Your task to perform on an android device: Open privacy settings Image 0: 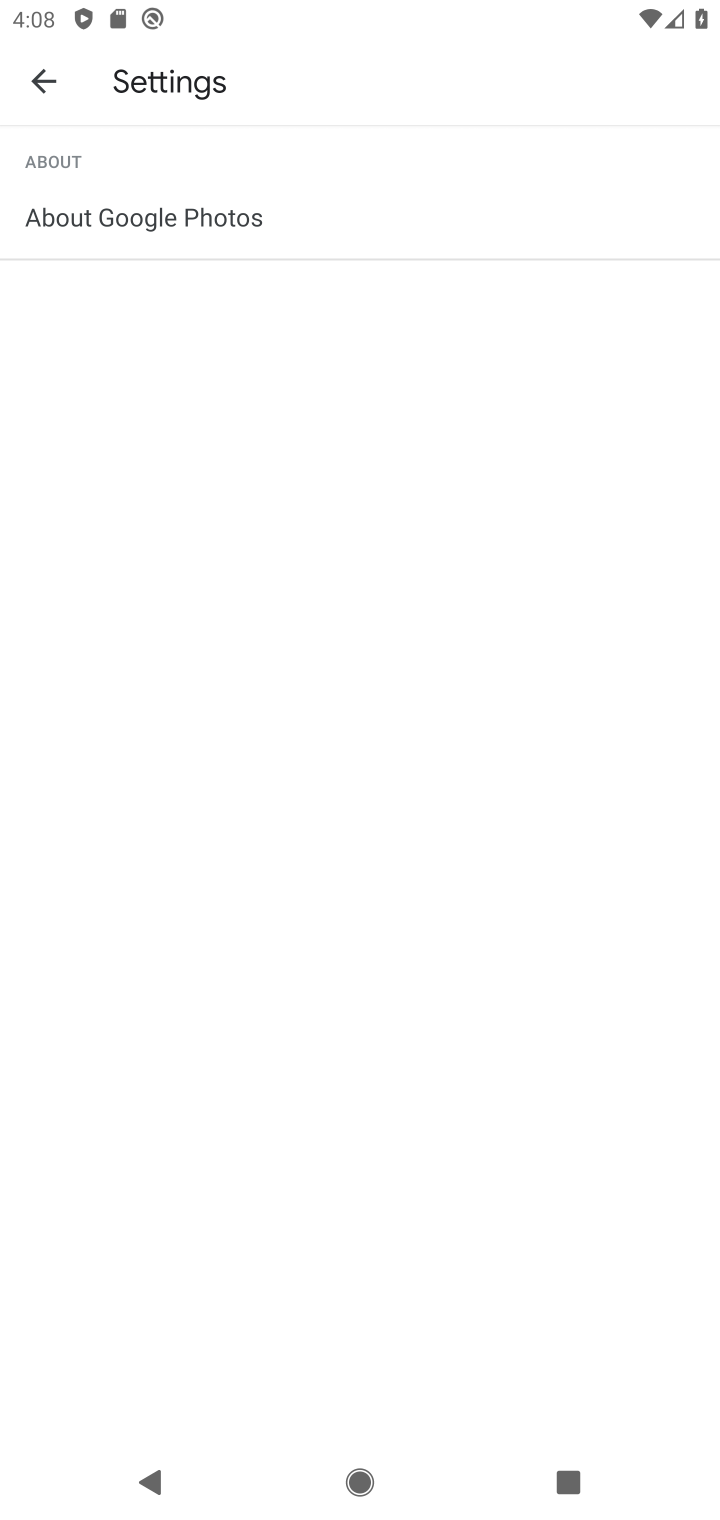
Step 0: press back button
Your task to perform on an android device: Open privacy settings Image 1: 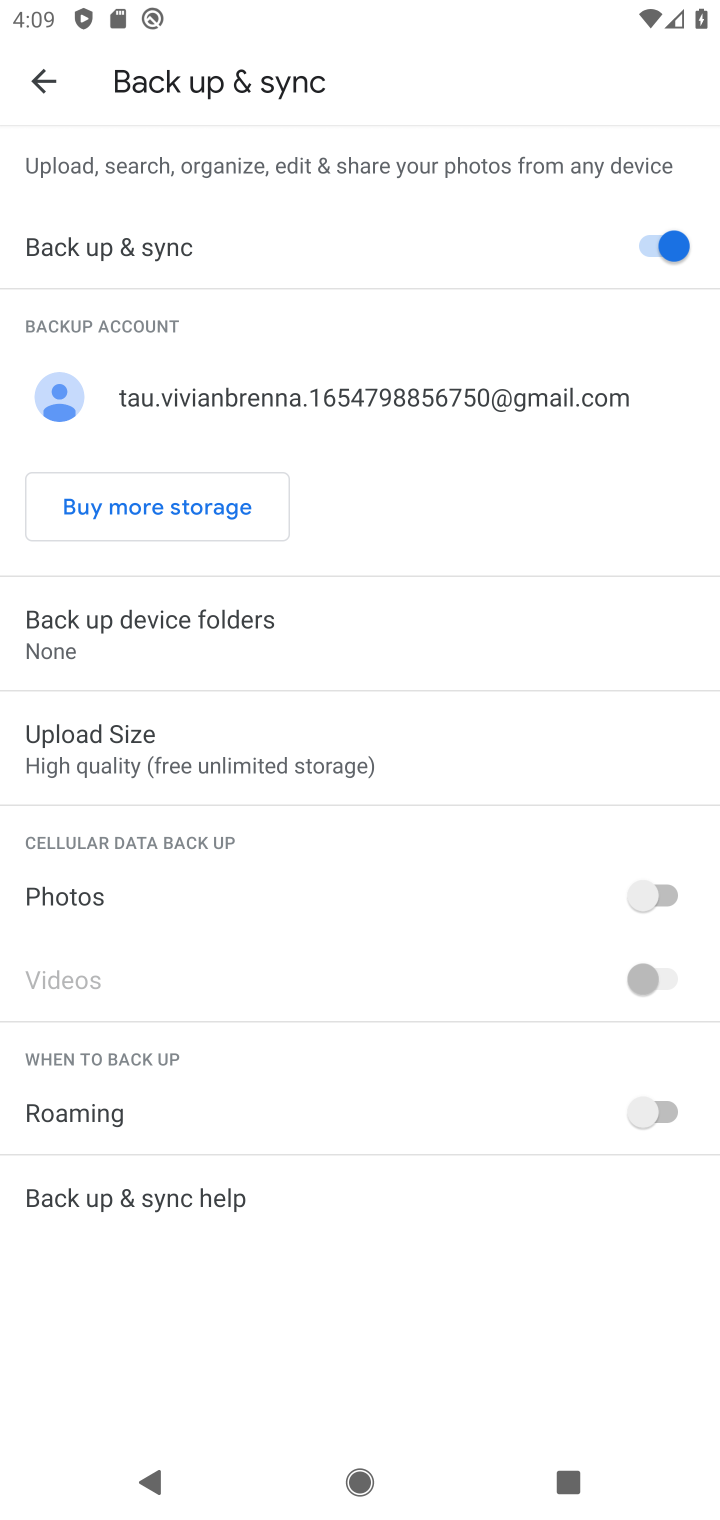
Step 1: click (49, 65)
Your task to perform on an android device: Open privacy settings Image 2: 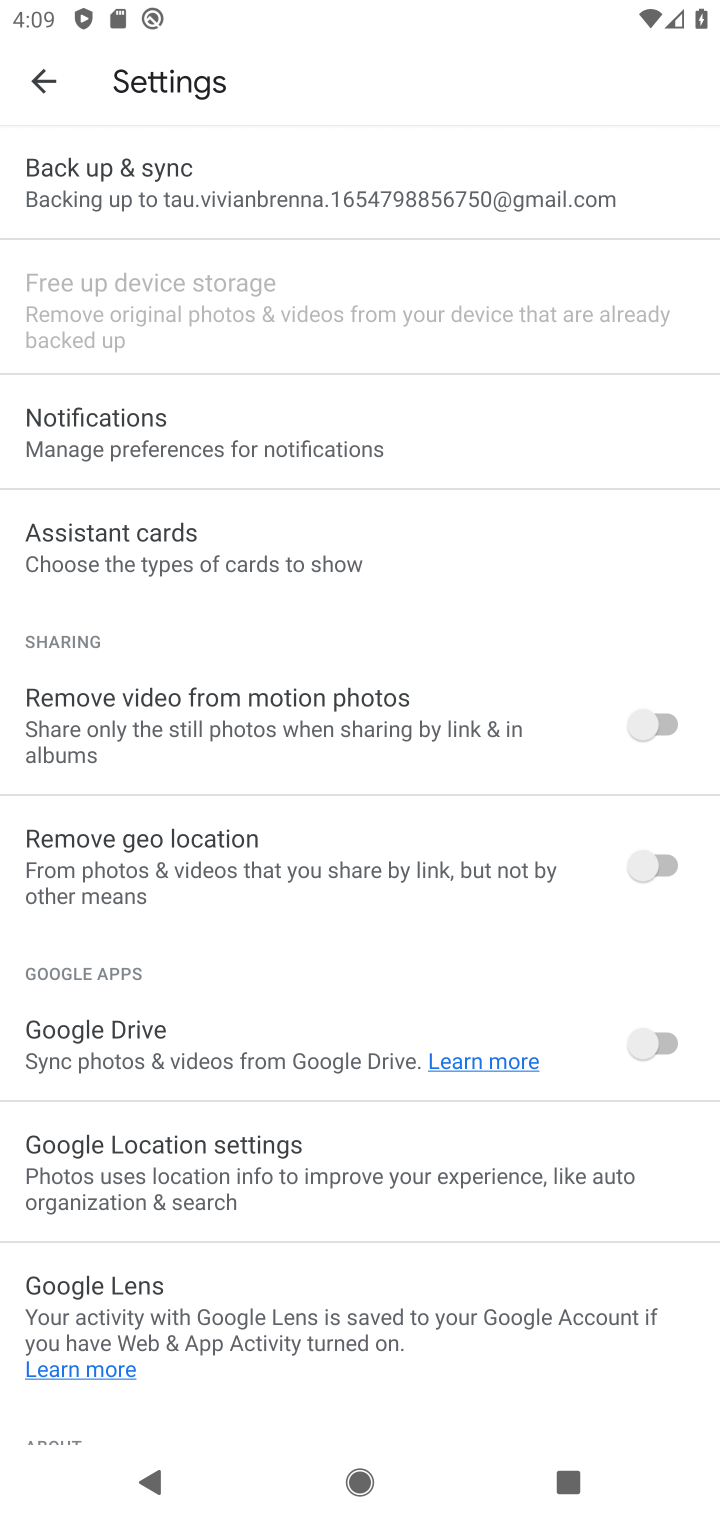
Step 2: press back button
Your task to perform on an android device: Open privacy settings Image 3: 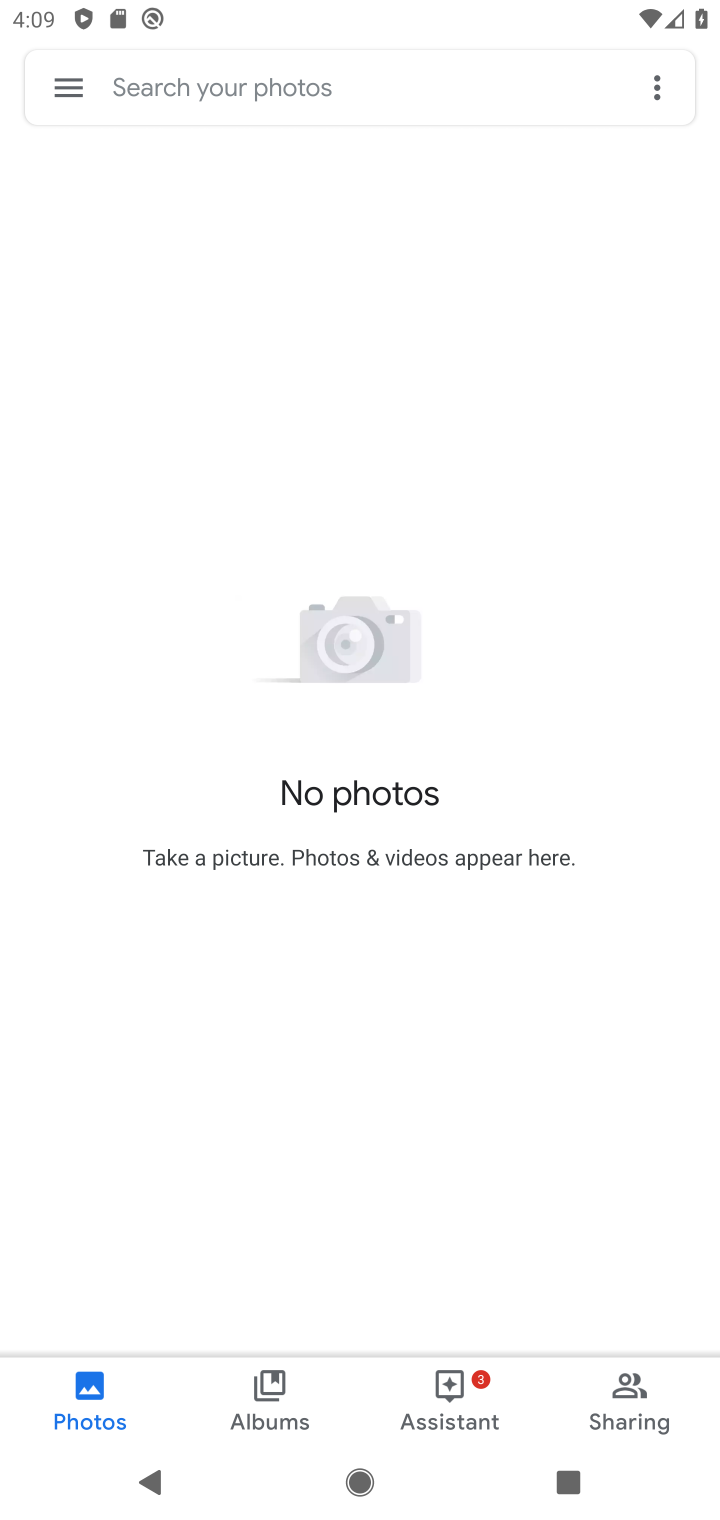
Step 3: press back button
Your task to perform on an android device: Open privacy settings Image 4: 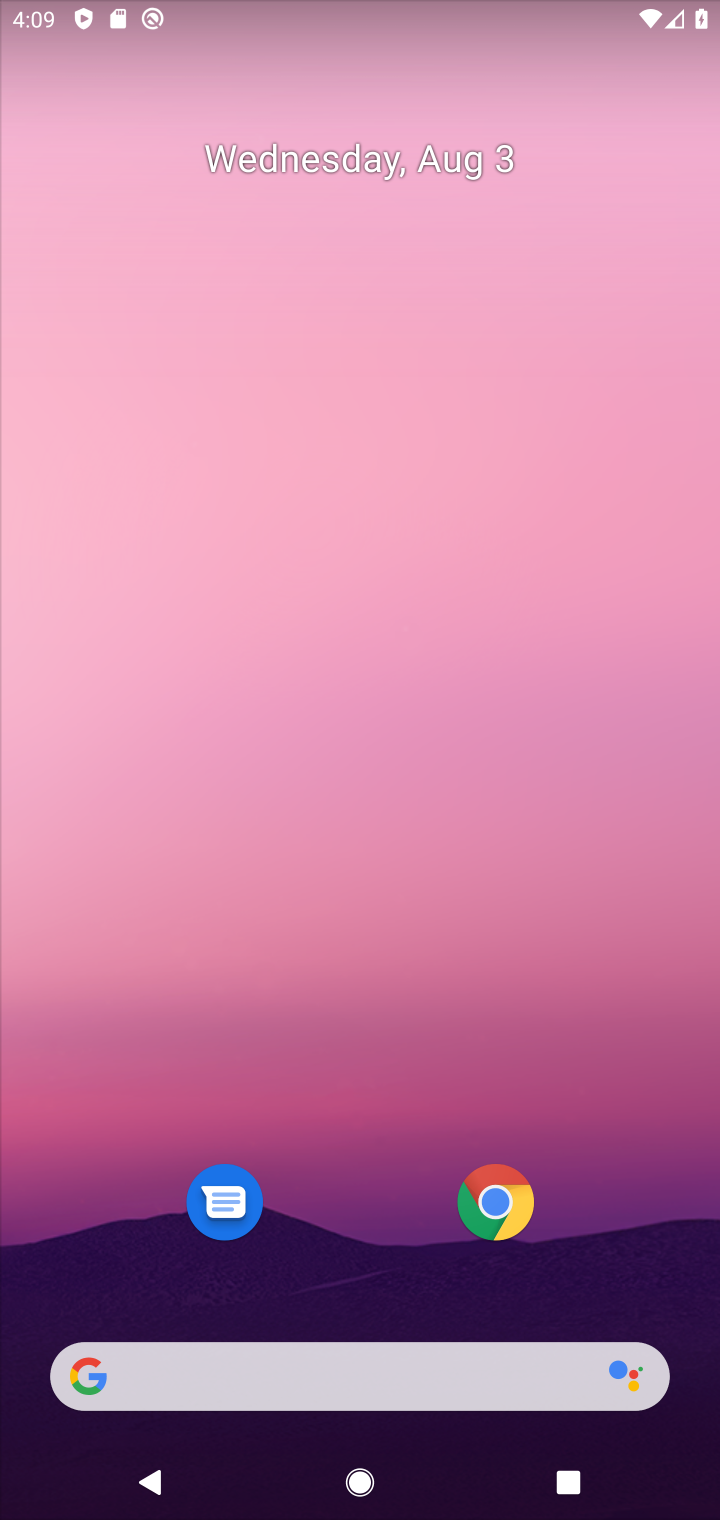
Step 4: drag from (377, 999) to (464, 147)
Your task to perform on an android device: Open privacy settings Image 5: 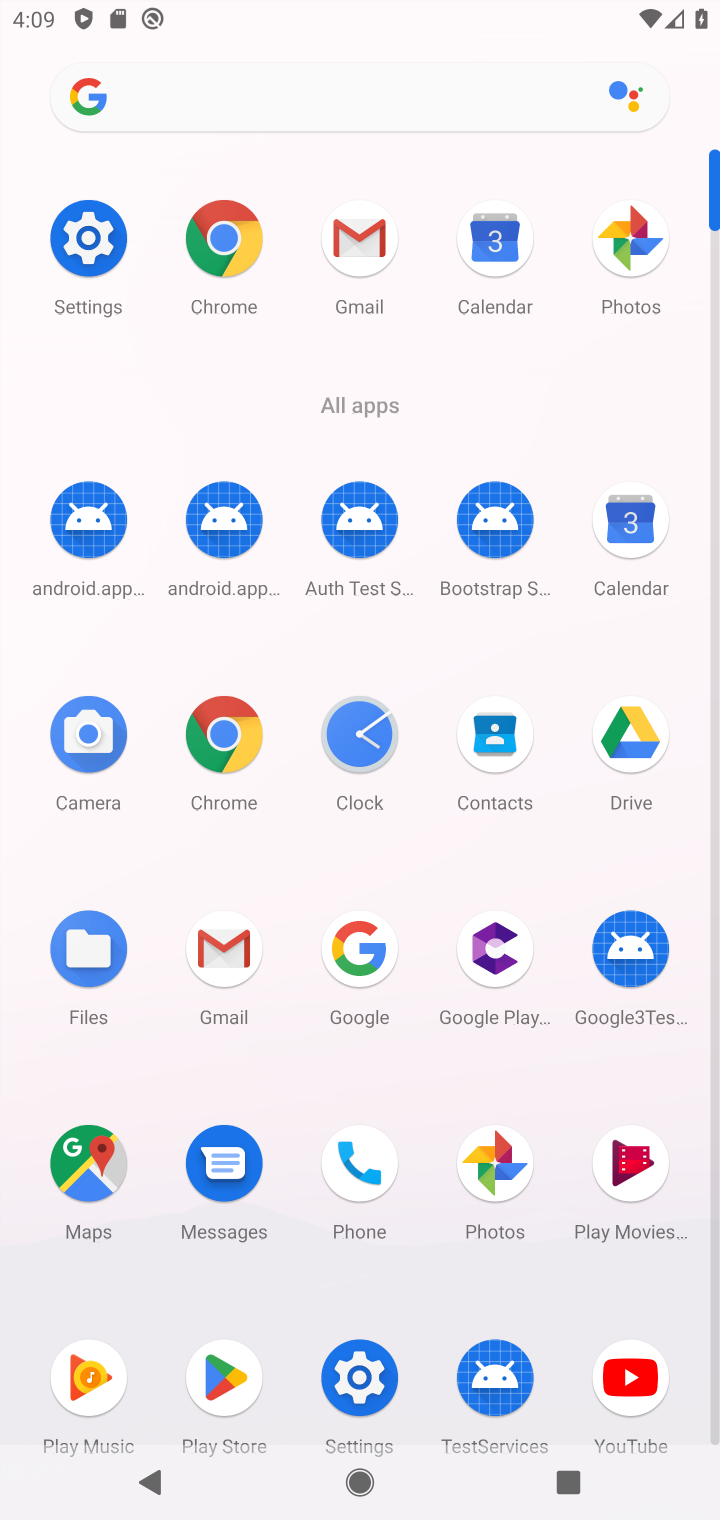
Step 5: click (108, 221)
Your task to perform on an android device: Open privacy settings Image 6: 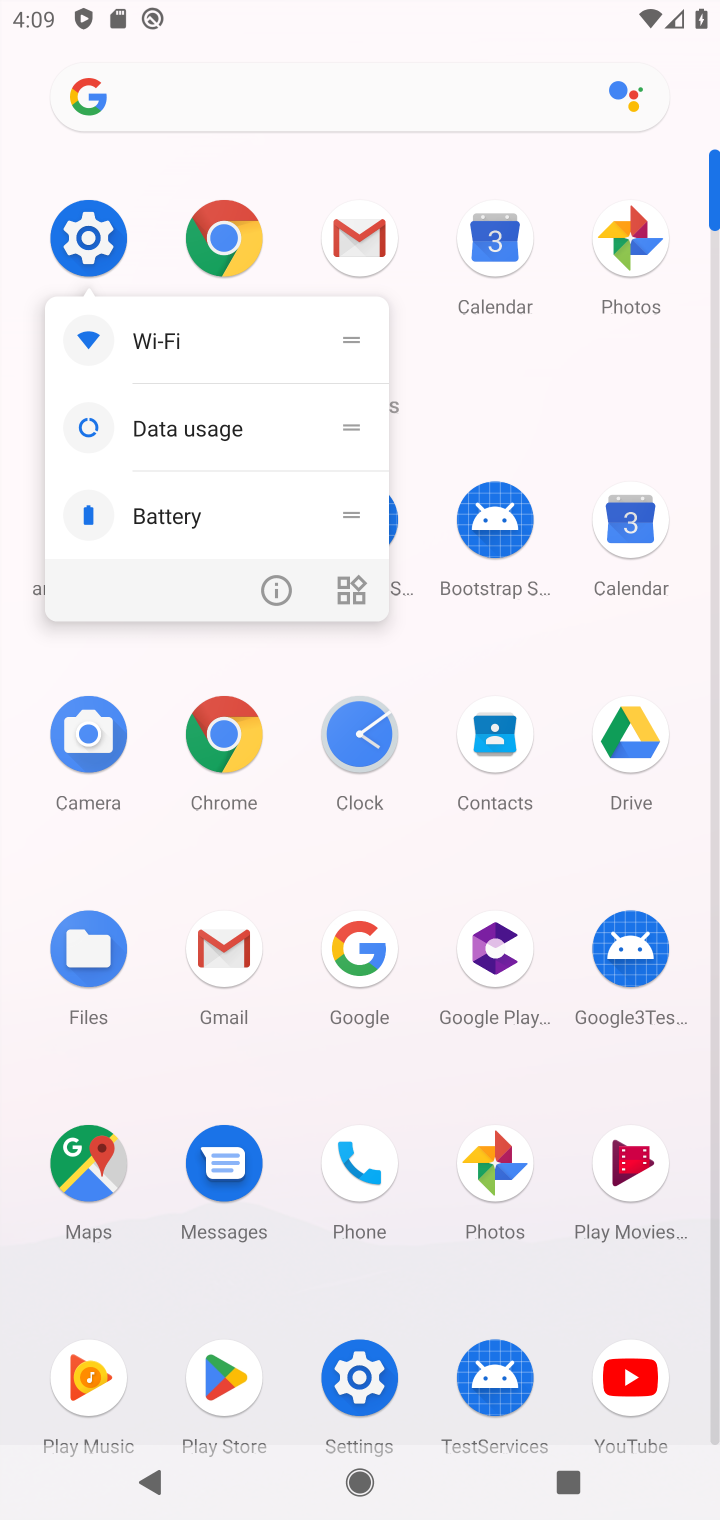
Step 6: click (95, 221)
Your task to perform on an android device: Open privacy settings Image 7: 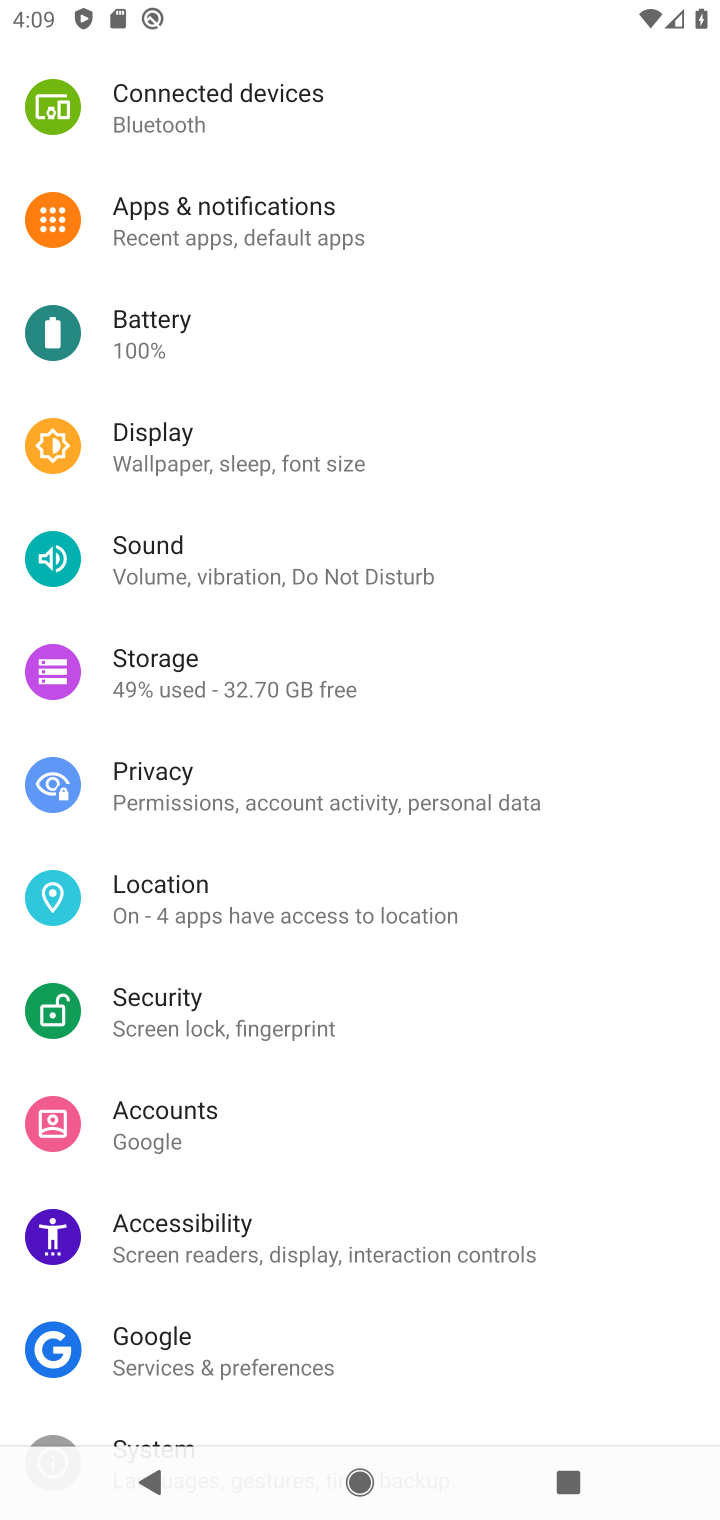
Step 7: click (166, 767)
Your task to perform on an android device: Open privacy settings Image 8: 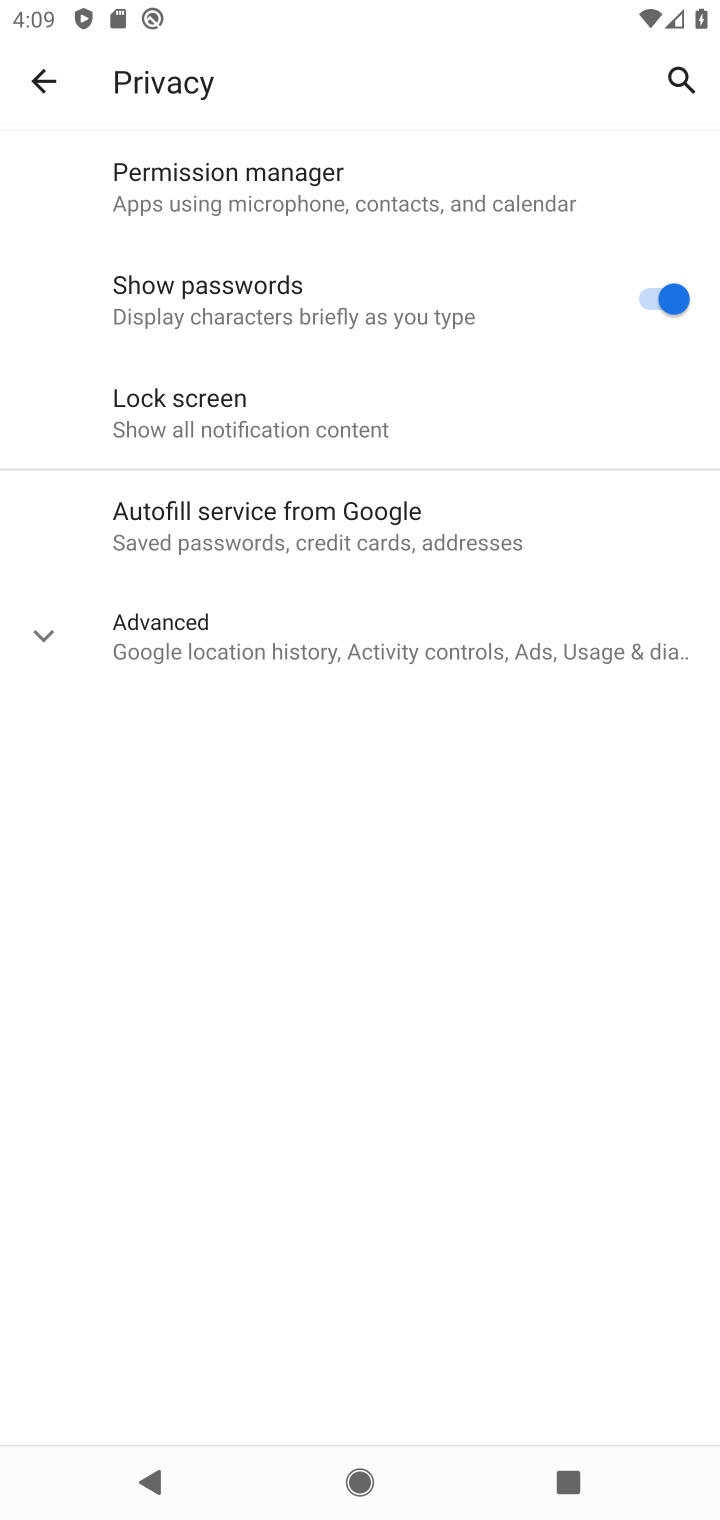
Step 8: task complete